Your task to perform on an android device: Clear the shopping cart on newegg.com. Image 0: 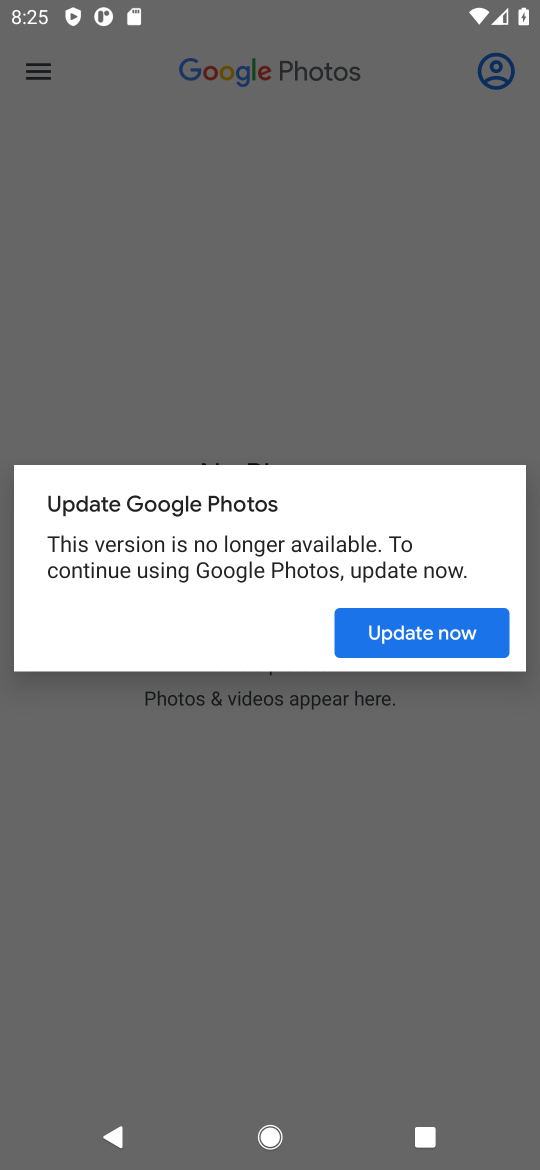
Step 0: press home button
Your task to perform on an android device: Clear the shopping cart on newegg.com. Image 1: 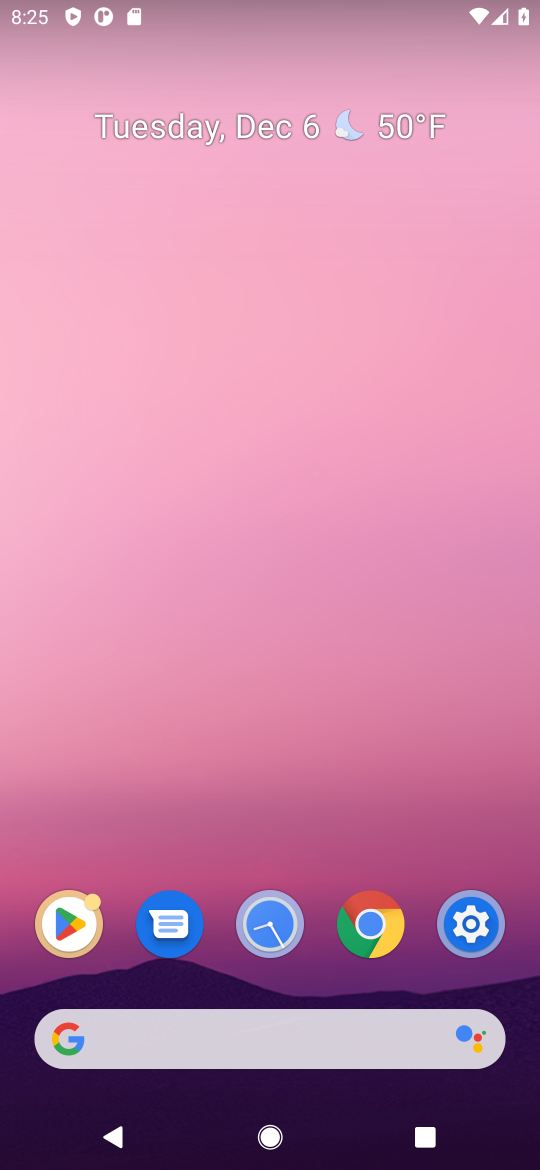
Step 1: click (263, 1062)
Your task to perform on an android device: Clear the shopping cart on newegg.com. Image 2: 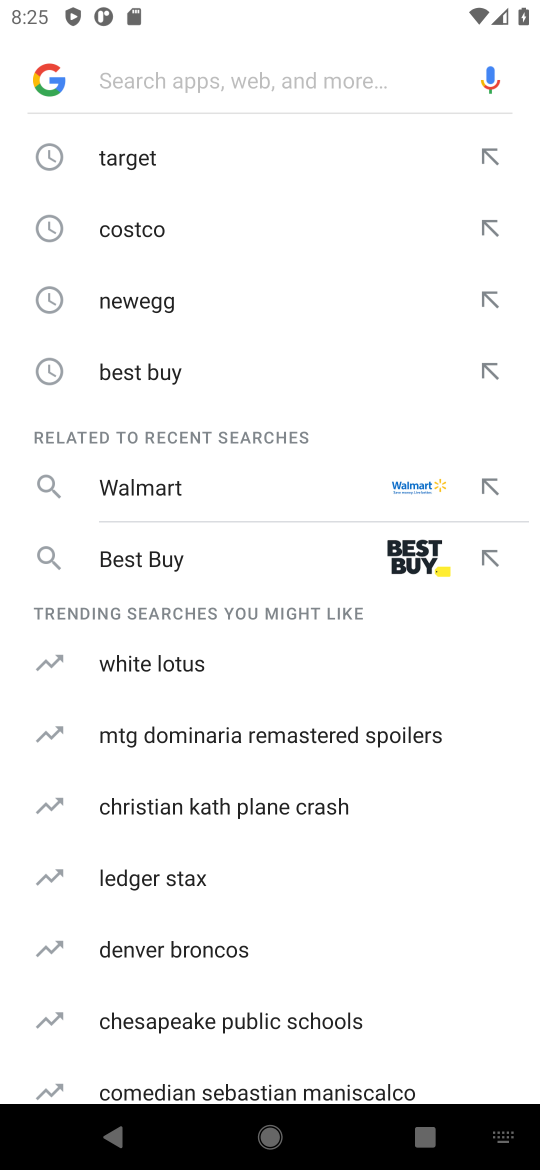
Step 2: type "newegg.com"
Your task to perform on an android device: Clear the shopping cart on newegg.com. Image 3: 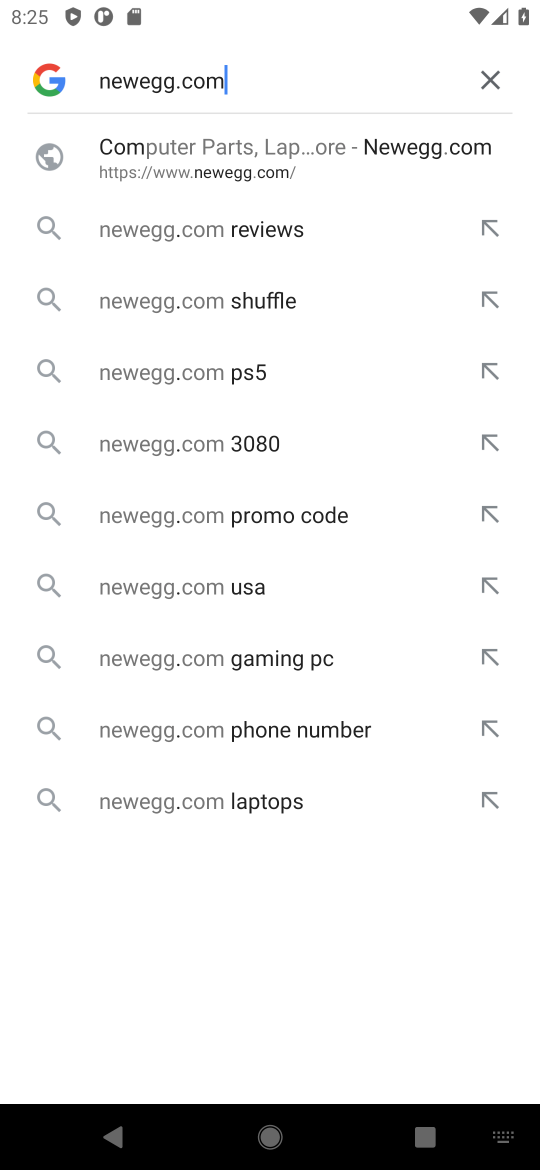
Step 3: click (194, 154)
Your task to perform on an android device: Clear the shopping cart on newegg.com. Image 4: 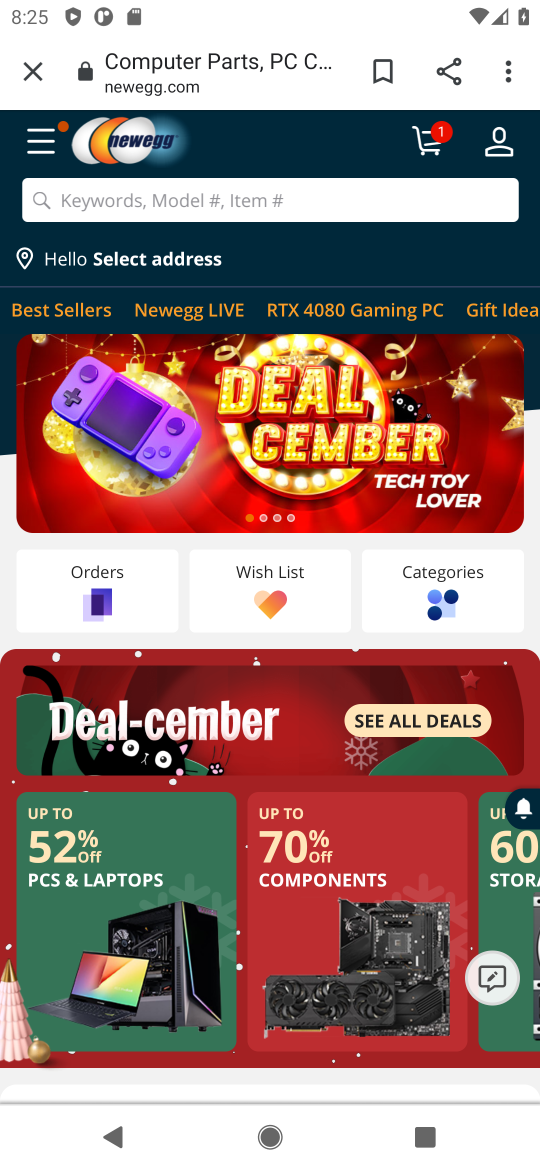
Step 4: click (234, 210)
Your task to perform on an android device: Clear the shopping cart on newegg.com. Image 5: 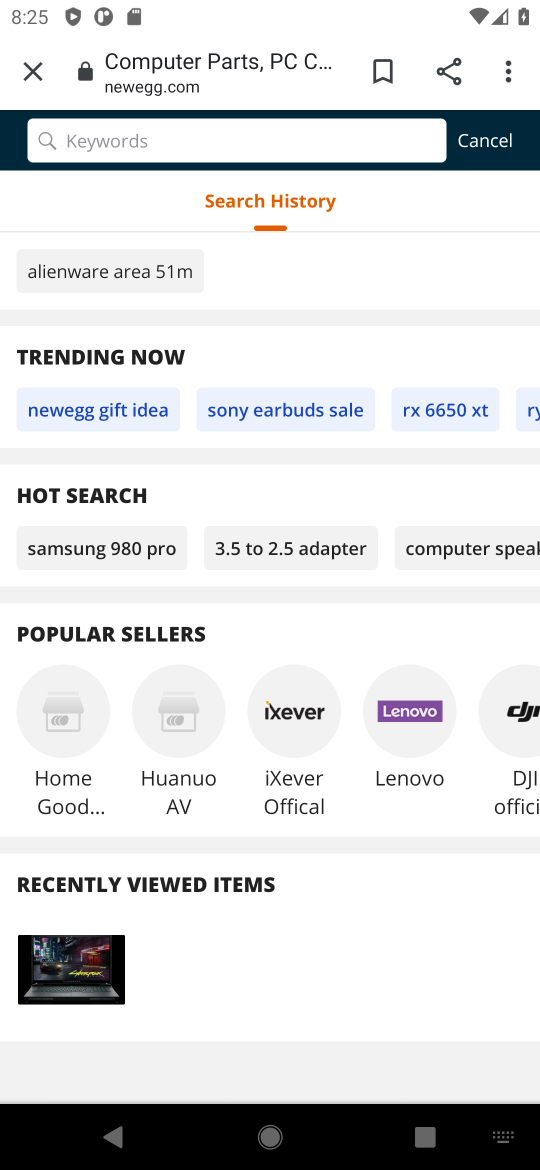
Step 5: type "newegg"
Your task to perform on an android device: Clear the shopping cart on newegg.com. Image 6: 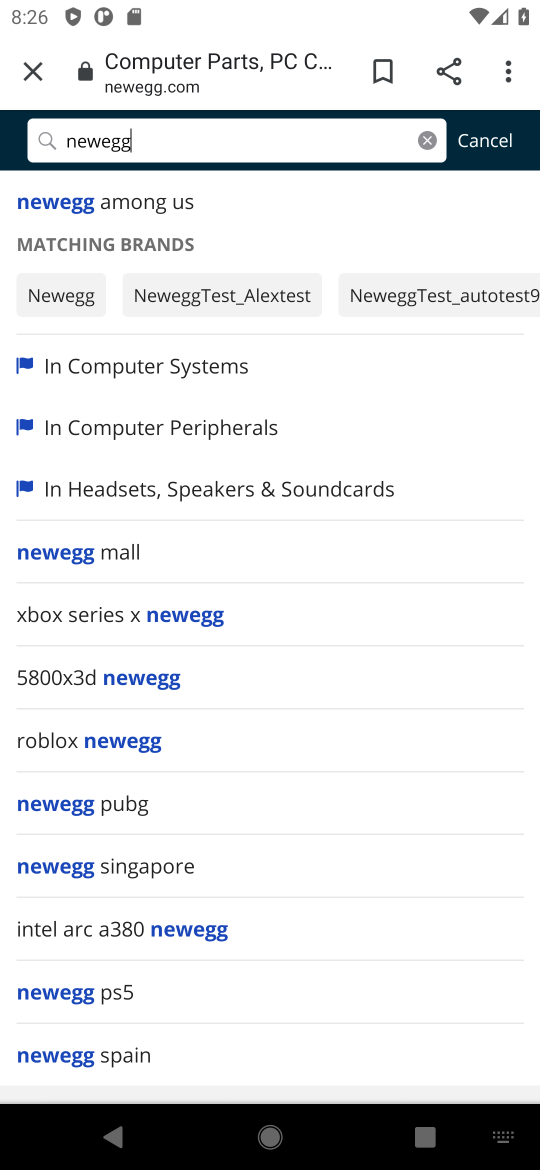
Step 6: click (417, 148)
Your task to perform on an android device: Clear the shopping cart on newegg.com. Image 7: 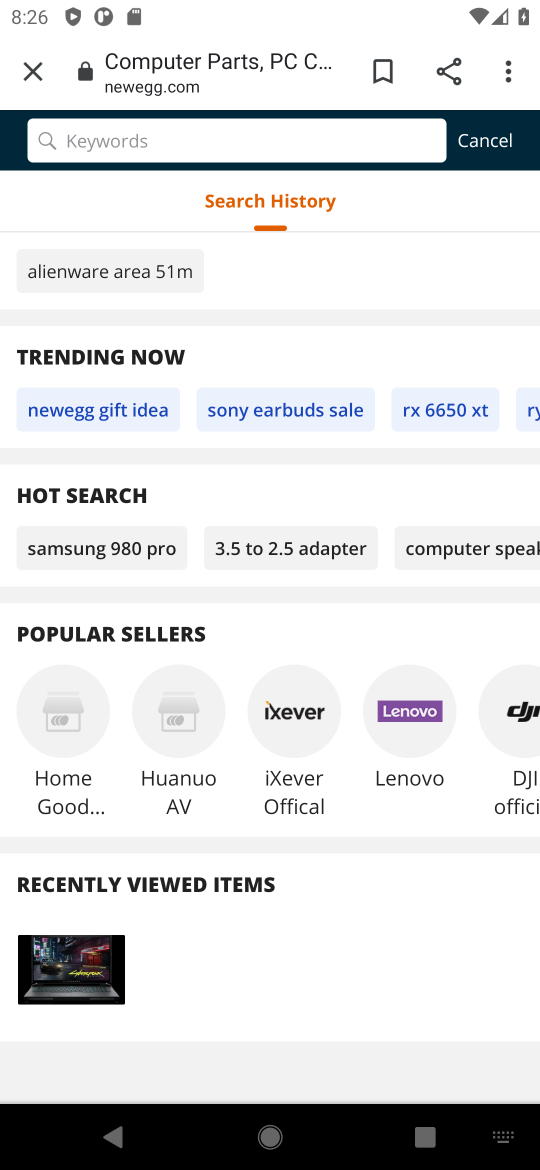
Step 7: click (480, 159)
Your task to perform on an android device: Clear the shopping cart on newegg.com. Image 8: 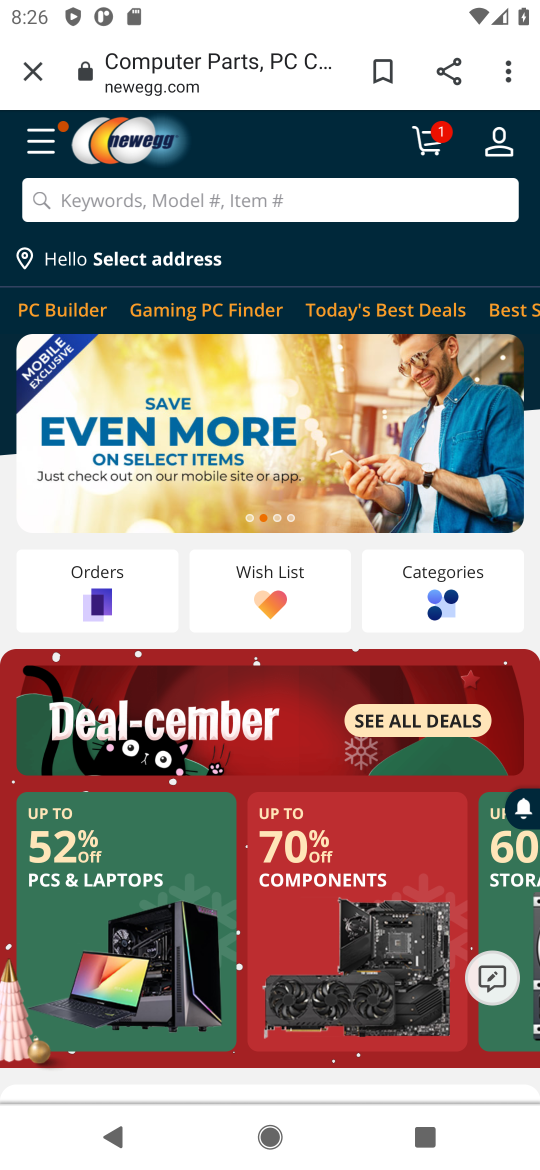
Step 8: click (431, 127)
Your task to perform on an android device: Clear the shopping cart on newegg.com. Image 9: 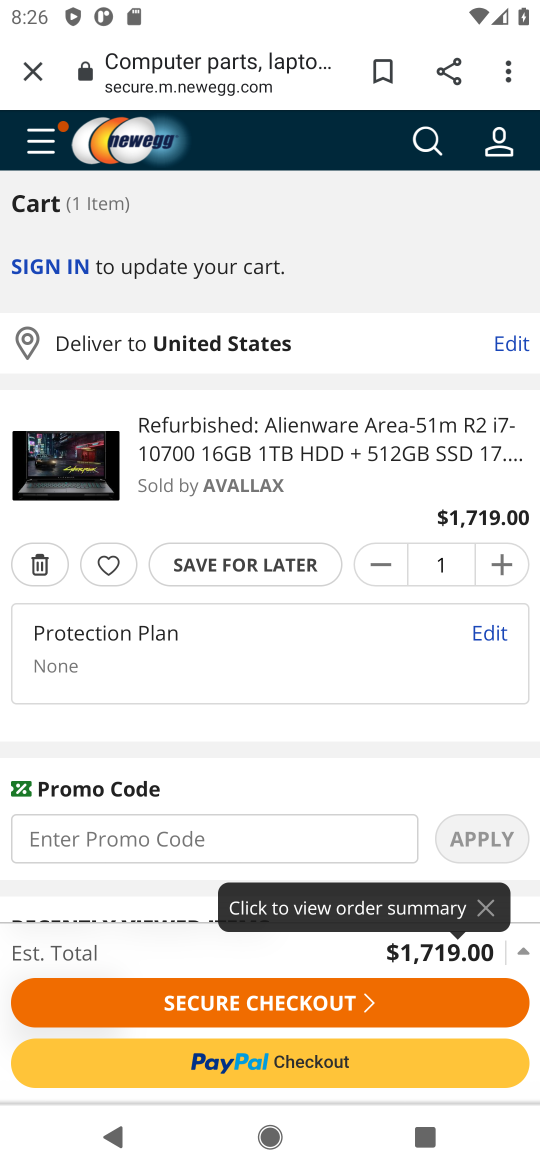
Step 9: click (40, 564)
Your task to perform on an android device: Clear the shopping cart on newegg.com. Image 10: 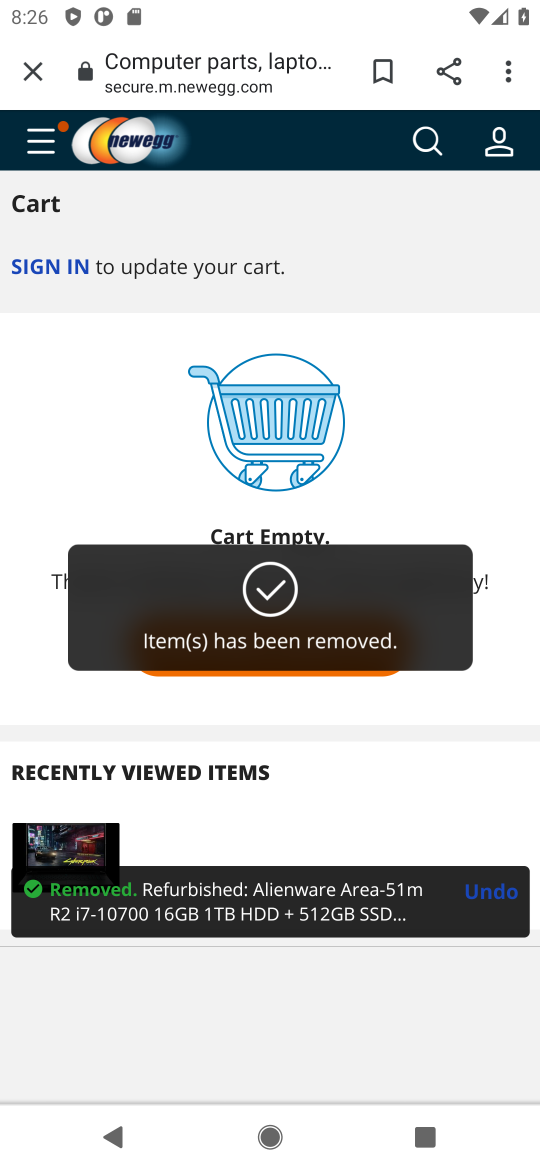
Step 10: task complete